Your task to perform on an android device: Search for Mexican restaurants on Maps Image 0: 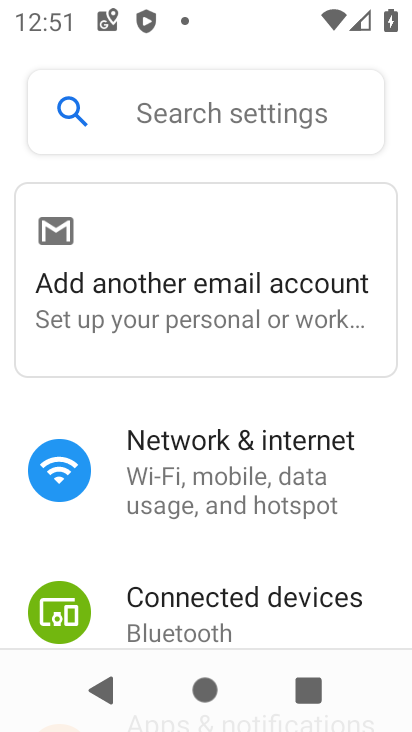
Step 0: press home button
Your task to perform on an android device: Search for Mexican restaurants on Maps Image 1: 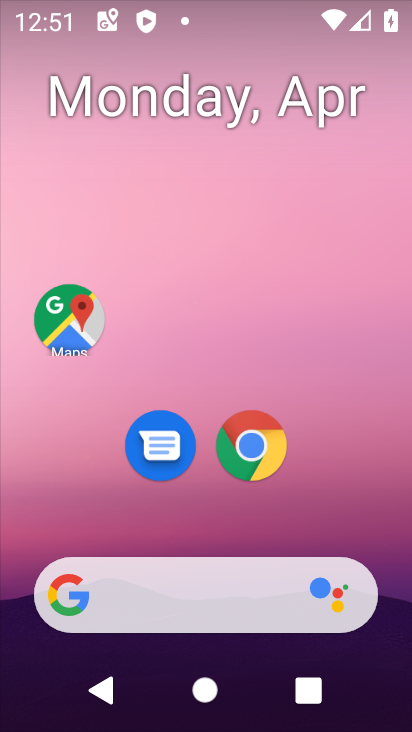
Step 1: drag from (363, 508) to (363, 76)
Your task to perform on an android device: Search for Mexican restaurants on Maps Image 2: 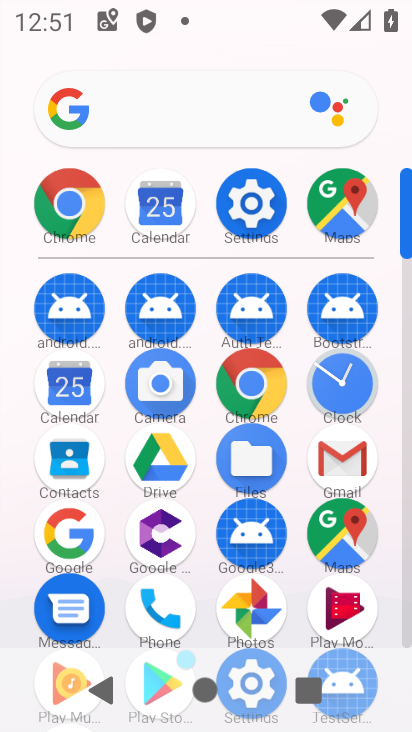
Step 2: click (373, 536)
Your task to perform on an android device: Search for Mexican restaurants on Maps Image 3: 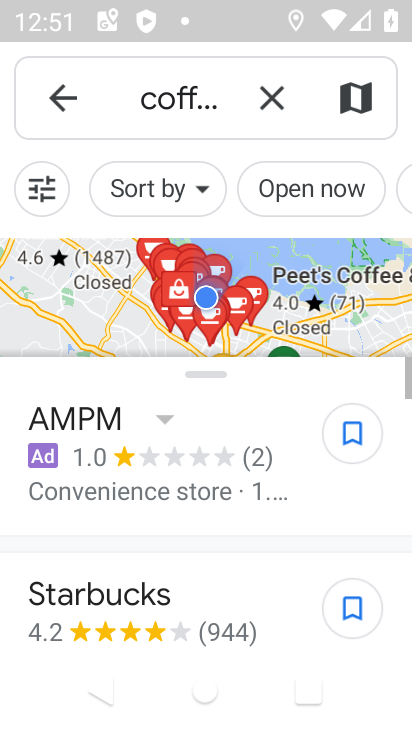
Step 3: click (276, 117)
Your task to perform on an android device: Search for Mexican restaurants on Maps Image 4: 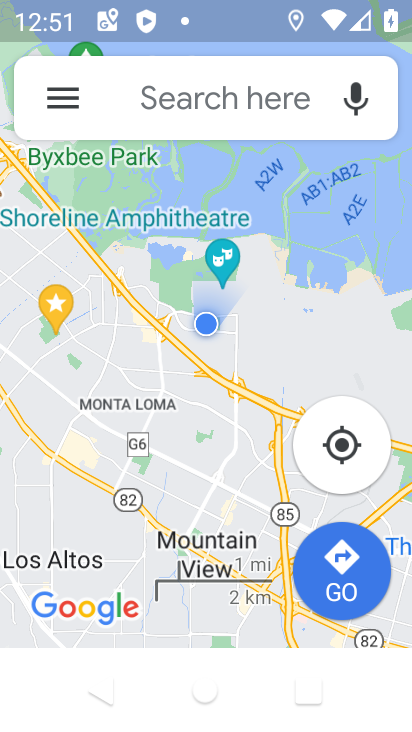
Step 4: click (211, 96)
Your task to perform on an android device: Search for Mexican restaurants on Maps Image 5: 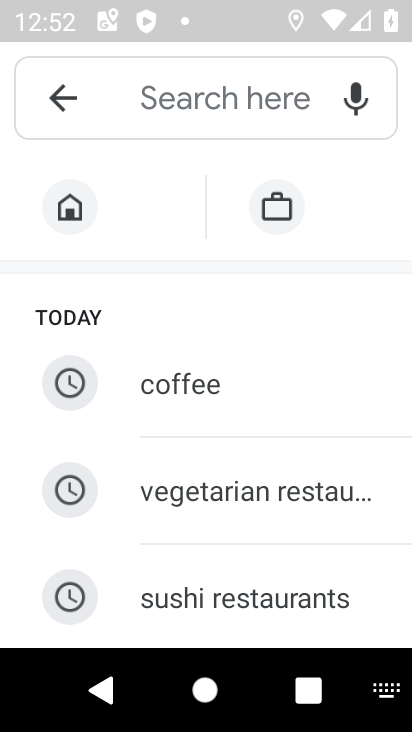
Step 5: type "mexcian restaurants"
Your task to perform on an android device: Search for Mexican restaurants on Maps Image 6: 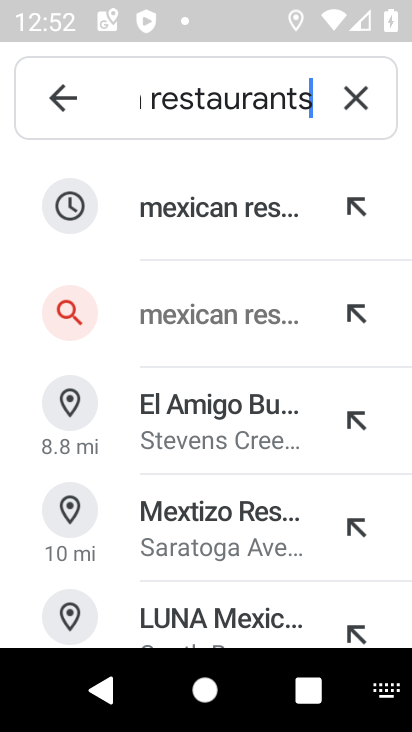
Step 6: click (308, 208)
Your task to perform on an android device: Search for Mexican restaurants on Maps Image 7: 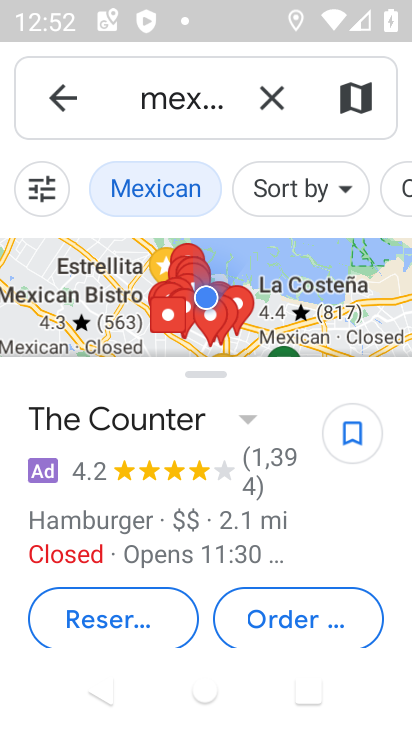
Step 7: task complete